Your task to perform on an android device: turn pop-ups on in chrome Image 0: 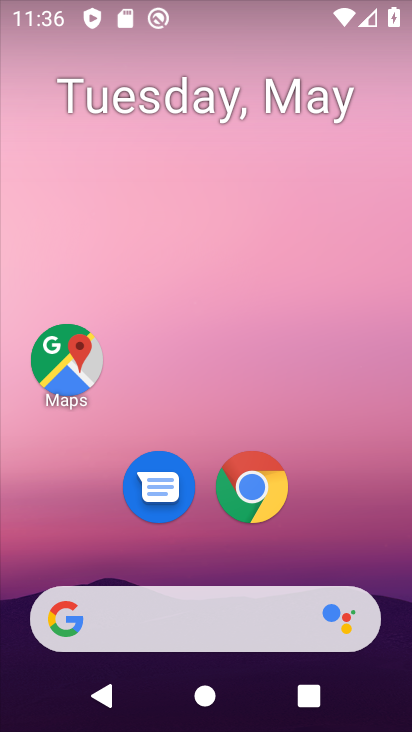
Step 0: click (252, 510)
Your task to perform on an android device: turn pop-ups on in chrome Image 1: 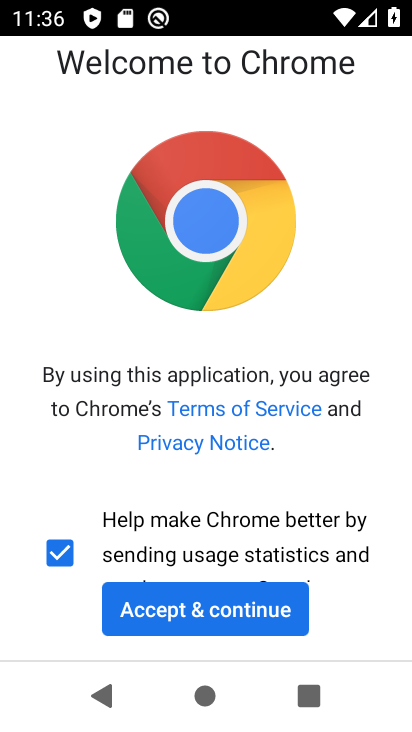
Step 1: click (262, 602)
Your task to perform on an android device: turn pop-ups on in chrome Image 2: 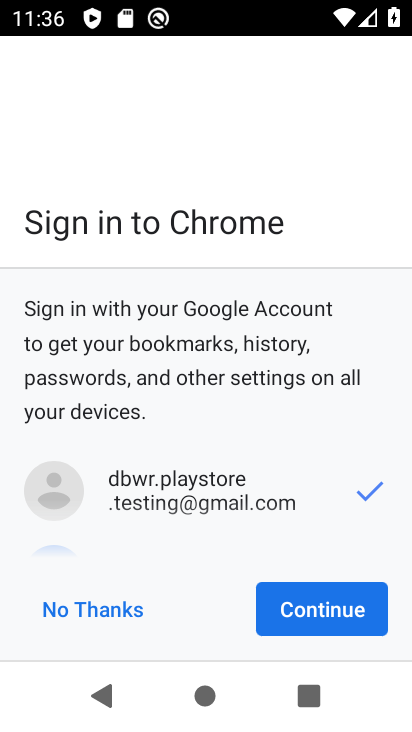
Step 2: click (322, 597)
Your task to perform on an android device: turn pop-ups on in chrome Image 3: 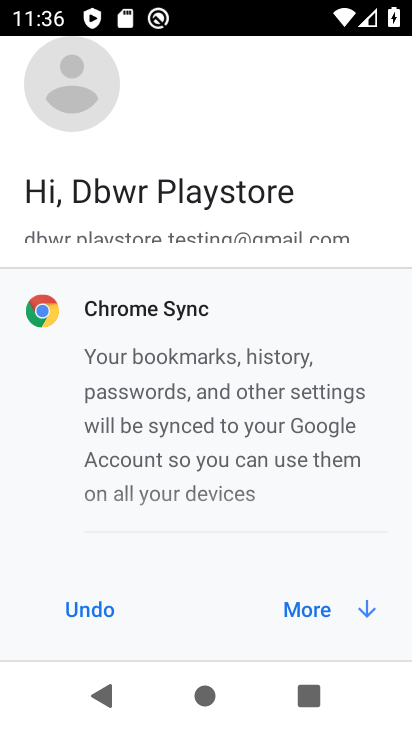
Step 3: click (317, 614)
Your task to perform on an android device: turn pop-ups on in chrome Image 4: 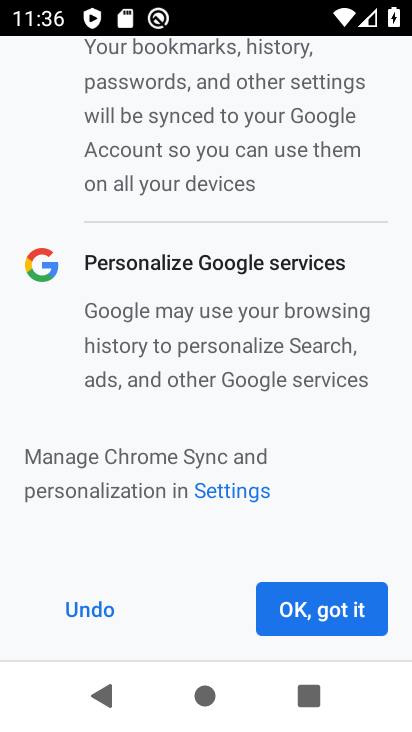
Step 4: click (317, 614)
Your task to perform on an android device: turn pop-ups on in chrome Image 5: 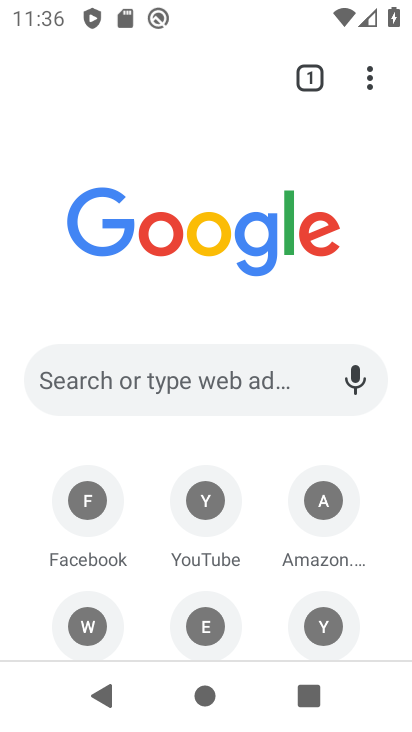
Step 5: click (317, 614)
Your task to perform on an android device: turn pop-ups on in chrome Image 6: 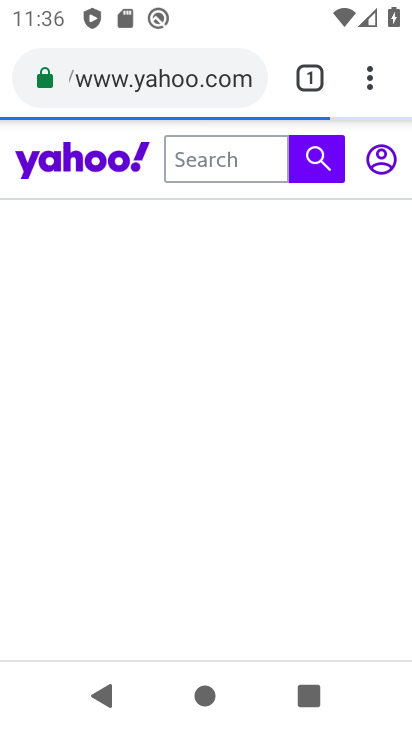
Step 6: click (372, 77)
Your task to perform on an android device: turn pop-ups on in chrome Image 7: 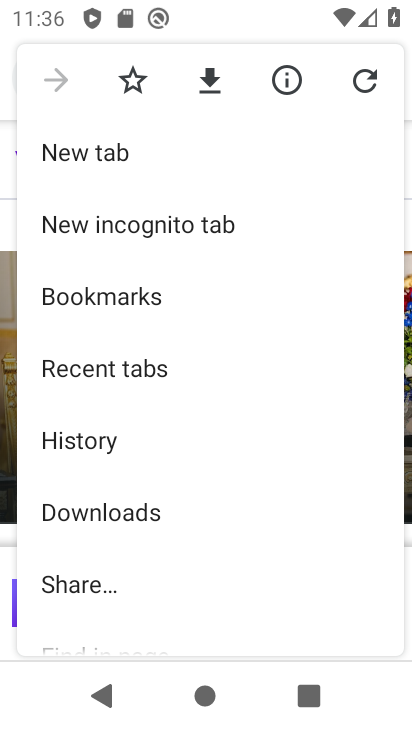
Step 7: drag from (254, 513) to (221, 145)
Your task to perform on an android device: turn pop-ups on in chrome Image 8: 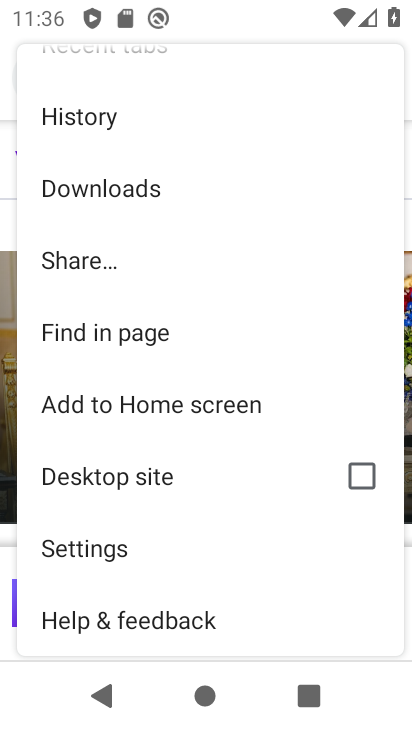
Step 8: click (141, 547)
Your task to perform on an android device: turn pop-ups on in chrome Image 9: 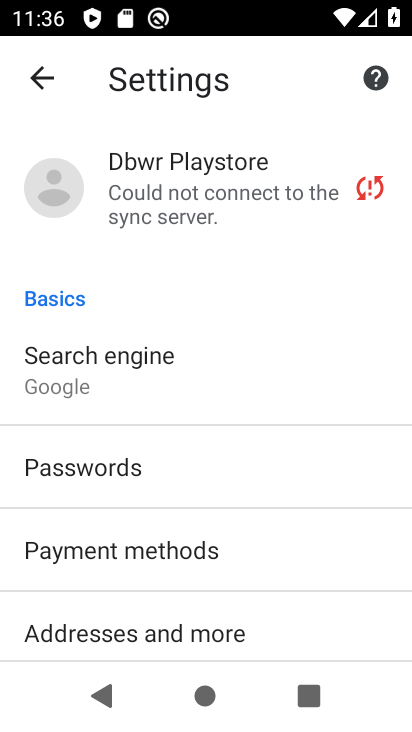
Step 9: drag from (172, 559) to (139, 231)
Your task to perform on an android device: turn pop-ups on in chrome Image 10: 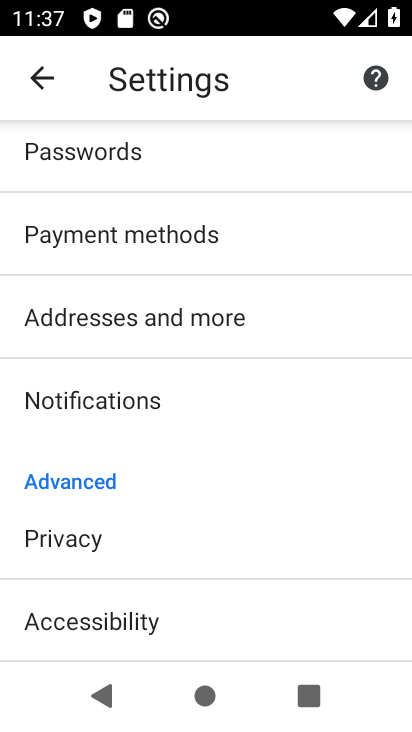
Step 10: drag from (171, 535) to (155, 272)
Your task to perform on an android device: turn pop-ups on in chrome Image 11: 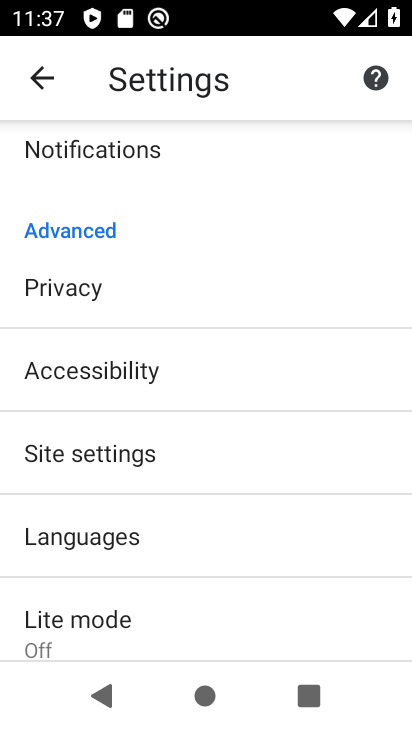
Step 11: drag from (185, 553) to (192, 233)
Your task to perform on an android device: turn pop-ups on in chrome Image 12: 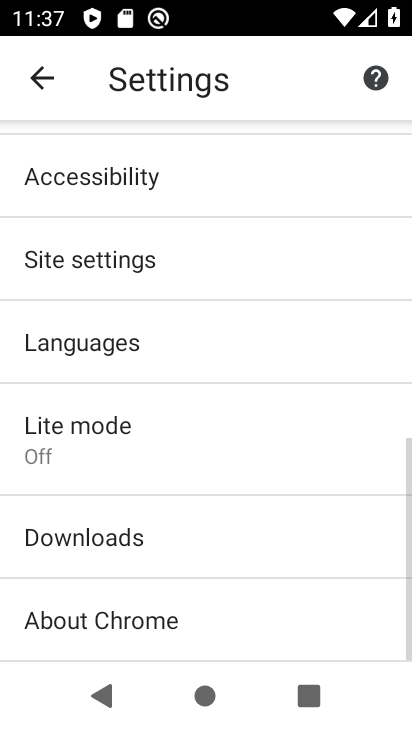
Step 12: click (178, 225)
Your task to perform on an android device: turn pop-ups on in chrome Image 13: 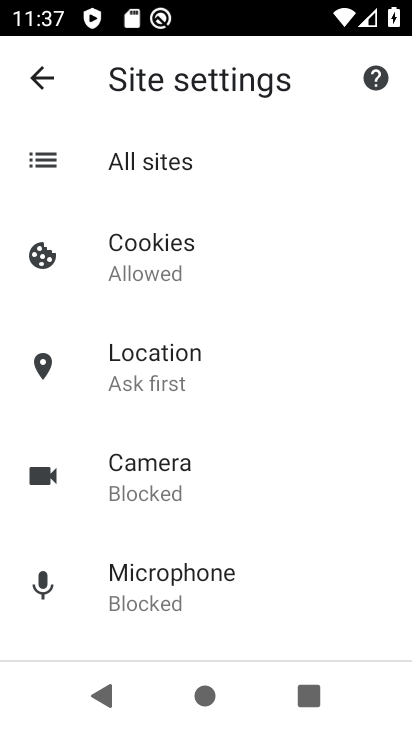
Step 13: drag from (239, 537) to (237, 211)
Your task to perform on an android device: turn pop-ups on in chrome Image 14: 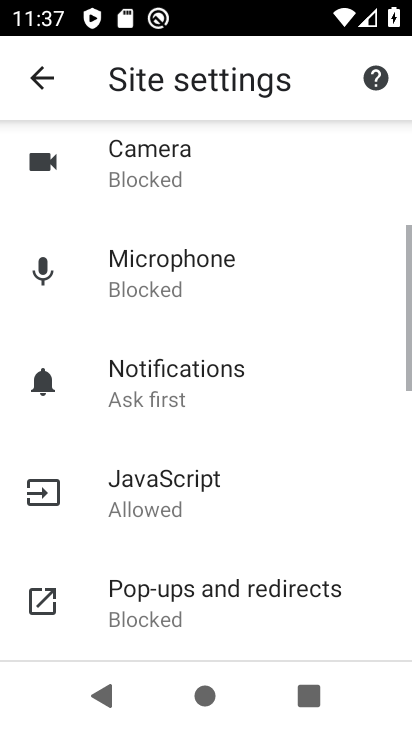
Step 14: drag from (232, 523) to (211, 330)
Your task to perform on an android device: turn pop-ups on in chrome Image 15: 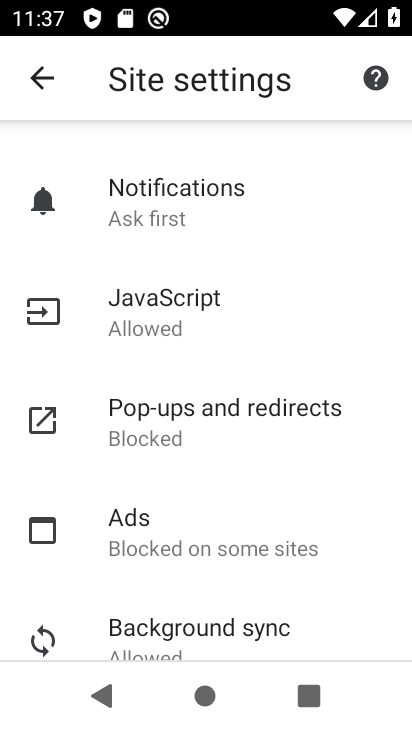
Step 15: click (209, 403)
Your task to perform on an android device: turn pop-ups on in chrome Image 16: 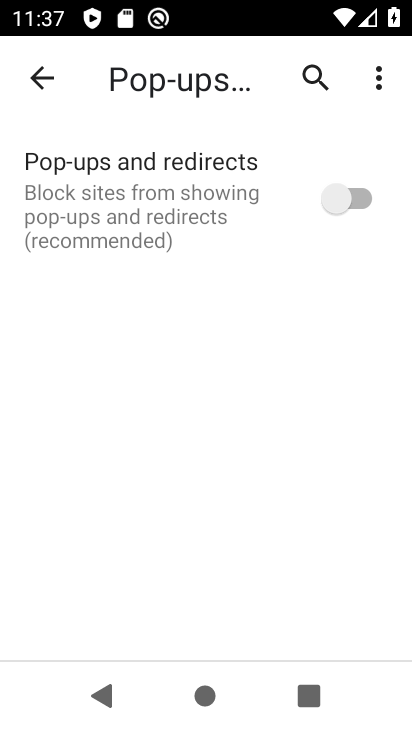
Step 16: click (330, 196)
Your task to perform on an android device: turn pop-ups on in chrome Image 17: 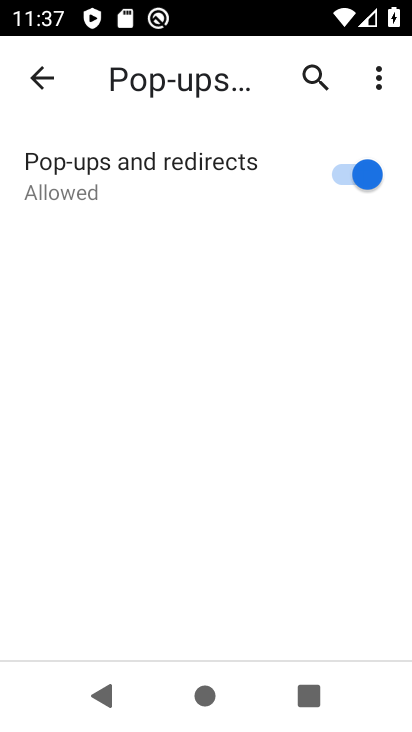
Step 17: task complete